Your task to perform on an android device: turn off smart reply in the gmail app Image 0: 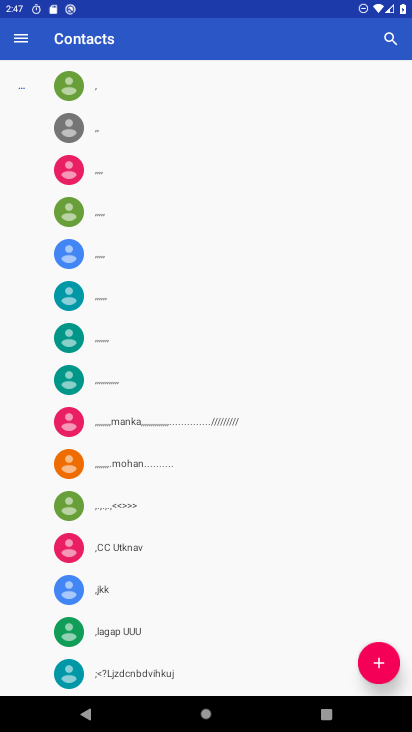
Step 0: press home button
Your task to perform on an android device: turn off smart reply in the gmail app Image 1: 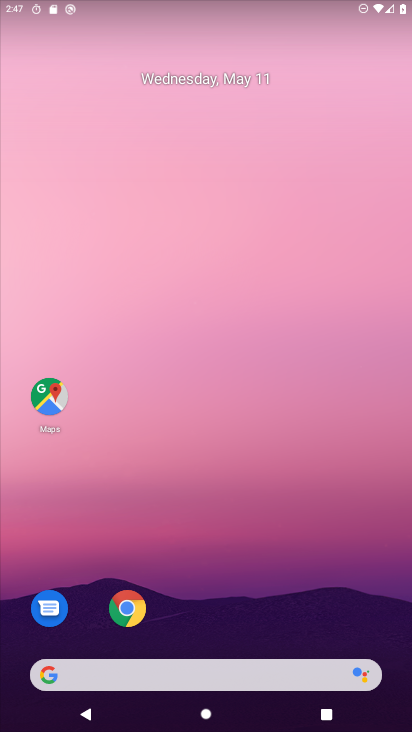
Step 1: task complete